Your task to perform on an android device: delete browsing data in the chrome app Image 0: 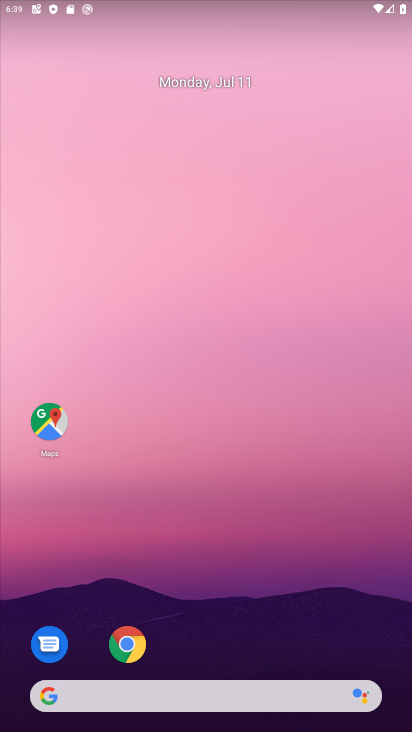
Step 0: drag from (256, 700) to (275, 104)
Your task to perform on an android device: delete browsing data in the chrome app Image 1: 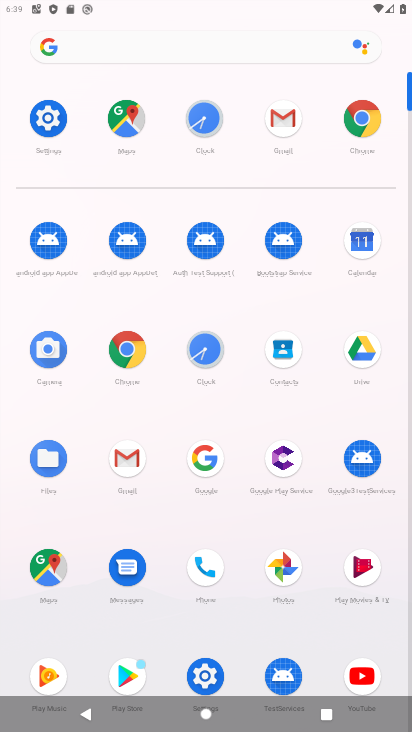
Step 1: click (139, 358)
Your task to perform on an android device: delete browsing data in the chrome app Image 2: 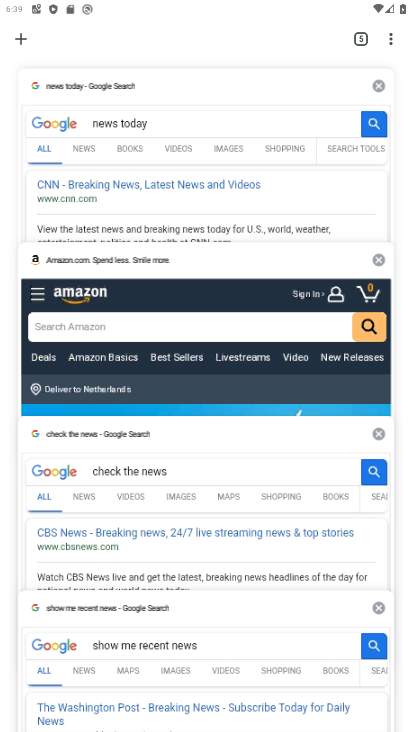
Step 2: drag from (395, 38) to (274, 182)
Your task to perform on an android device: delete browsing data in the chrome app Image 3: 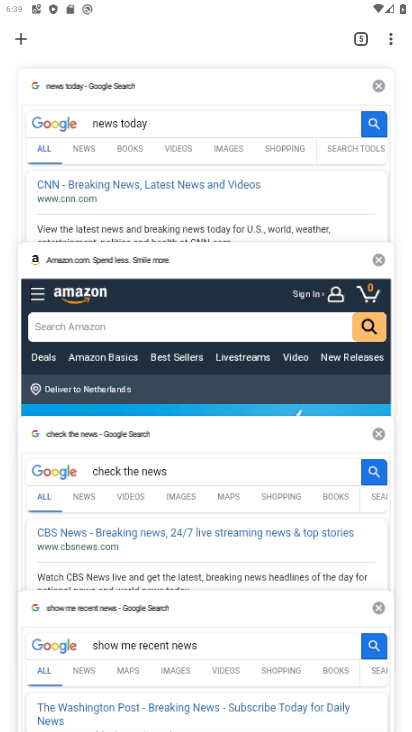
Step 3: click (121, 40)
Your task to perform on an android device: delete browsing data in the chrome app Image 4: 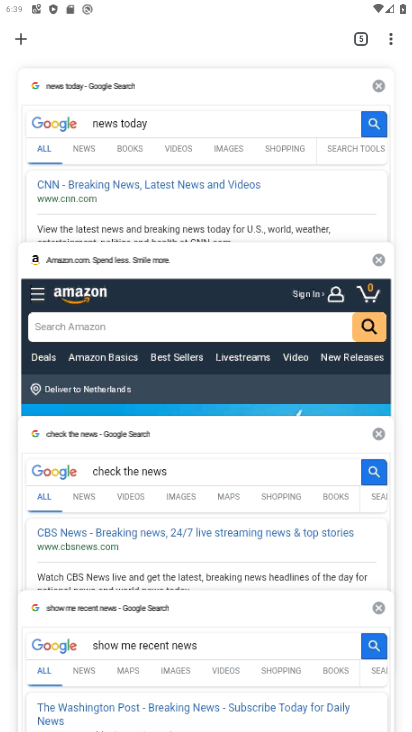
Step 4: click (168, 424)
Your task to perform on an android device: delete browsing data in the chrome app Image 5: 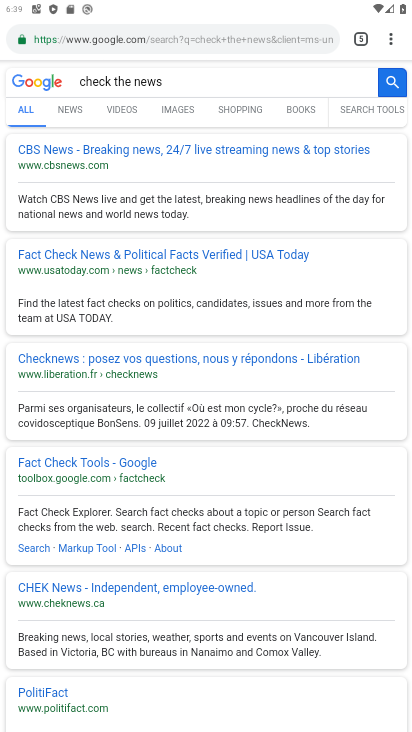
Step 5: drag from (387, 34) to (272, 222)
Your task to perform on an android device: delete browsing data in the chrome app Image 6: 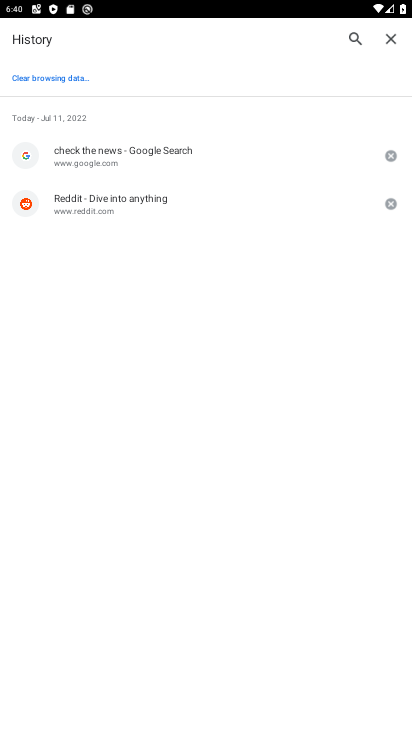
Step 6: click (61, 68)
Your task to perform on an android device: delete browsing data in the chrome app Image 7: 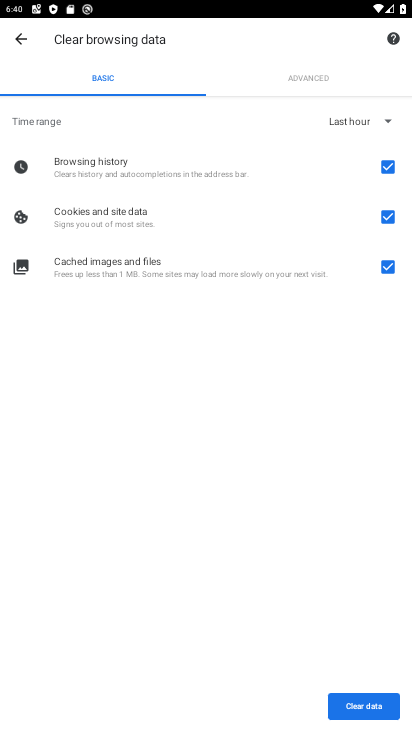
Step 7: click (367, 697)
Your task to perform on an android device: delete browsing data in the chrome app Image 8: 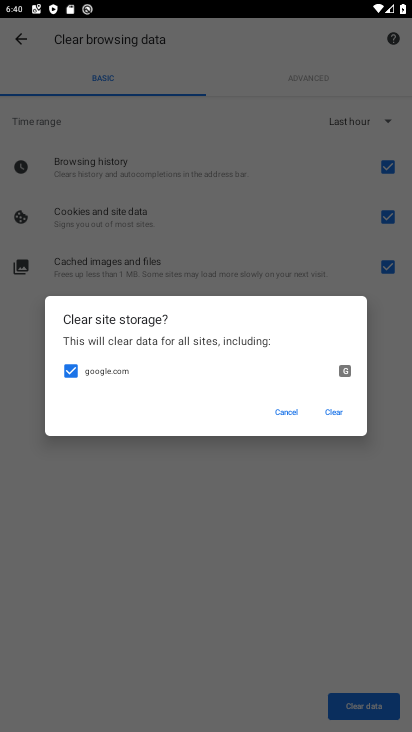
Step 8: click (332, 406)
Your task to perform on an android device: delete browsing data in the chrome app Image 9: 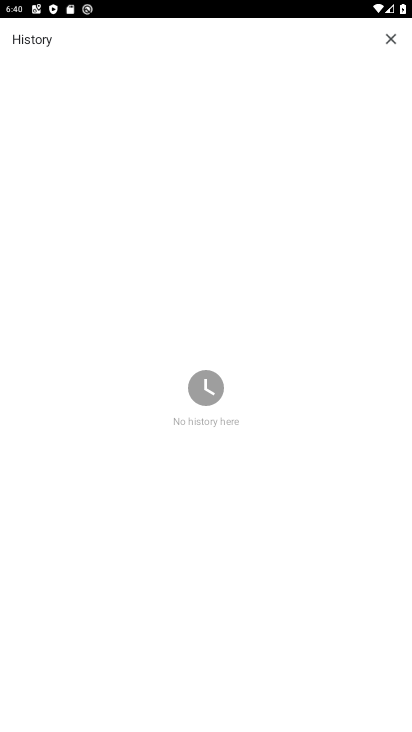
Step 9: task complete